Your task to perform on an android device: set an alarm Image 0: 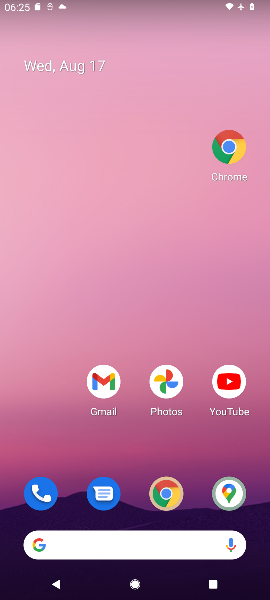
Step 0: press home button
Your task to perform on an android device: set an alarm Image 1: 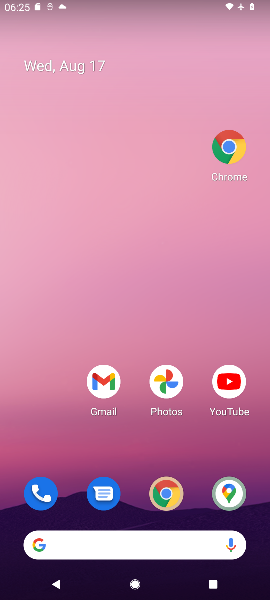
Step 1: drag from (140, 517) to (193, 36)
Your task to perform on an android device: set an alarm Image 2: 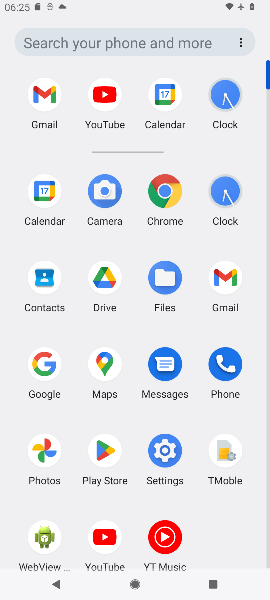
Step 2: click (229, 193)
Your task to perform on an android device: set an alarm Image 3: 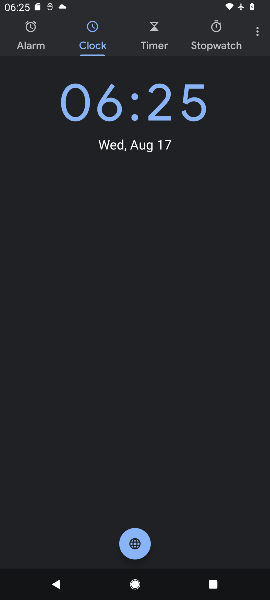
Step 3: click (33, 31)
Your task to perform on an android device: set an alarm Image 4: 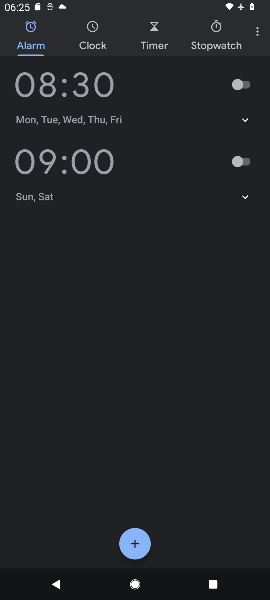
Step 4: click (240, 89)
Your task to perform on an android device: set an alarm Image 5: 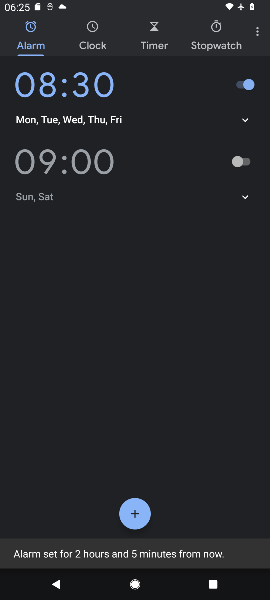
Step 5: task complete